Your task to perform on an android device: Go to settings Image 0: 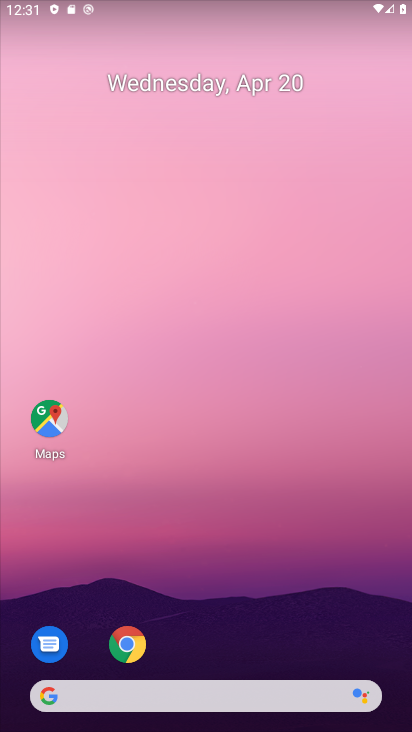
Step 0: drag from (305, 648) to (346, 26)
Your task to perform on an android device: Go to settings Image 1: 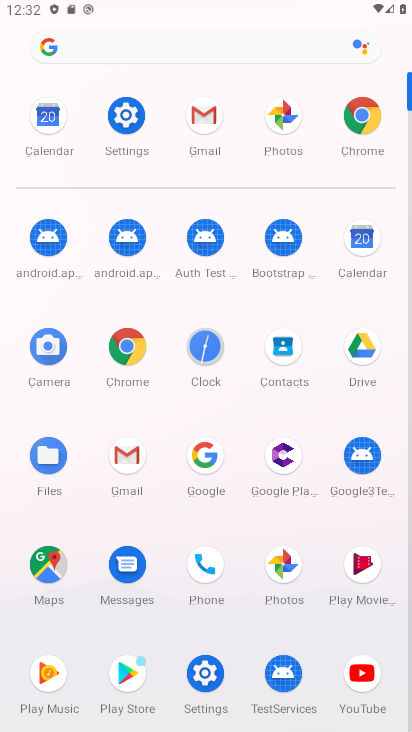
Step 1: click (127, 113)
Your task to perform on an android device: Go to settings Image 2: 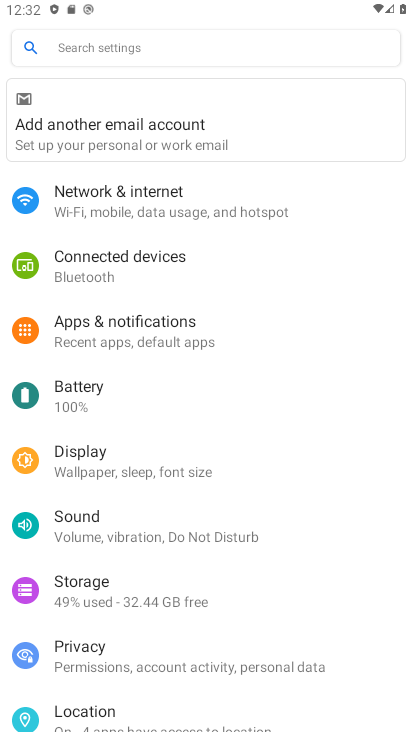
Step 2: task complete